Your task to perform on an android device: Open settings on Google Maps Image 0: 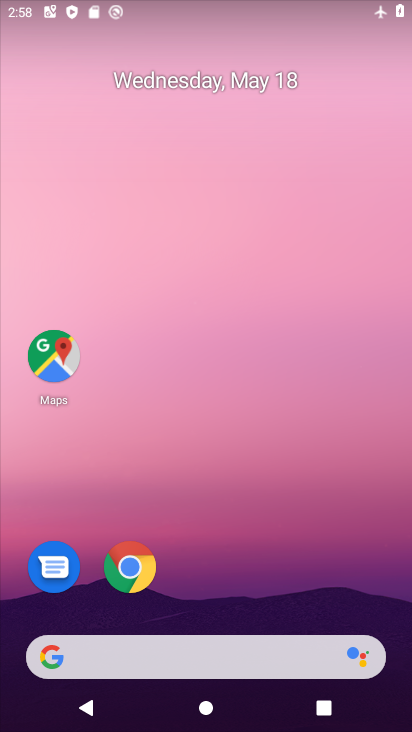
Step 0: click (42, 357)
Your task to perform on an android device: Open settings on Google Maps Image 1: 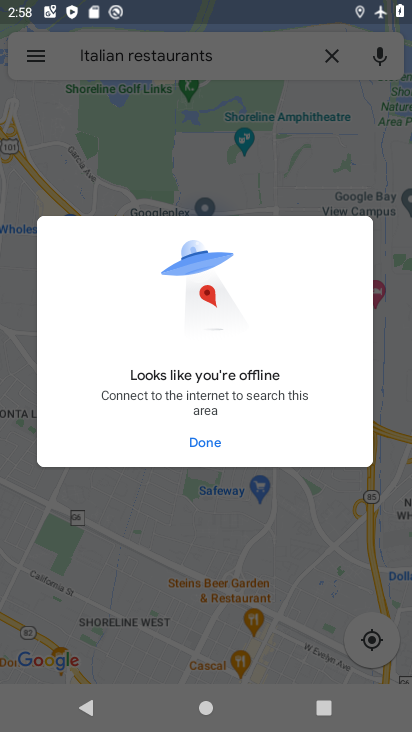
Step 1: click (199, 428)
Your task to perform on an android device: Open settings on Google Maps Image 2: 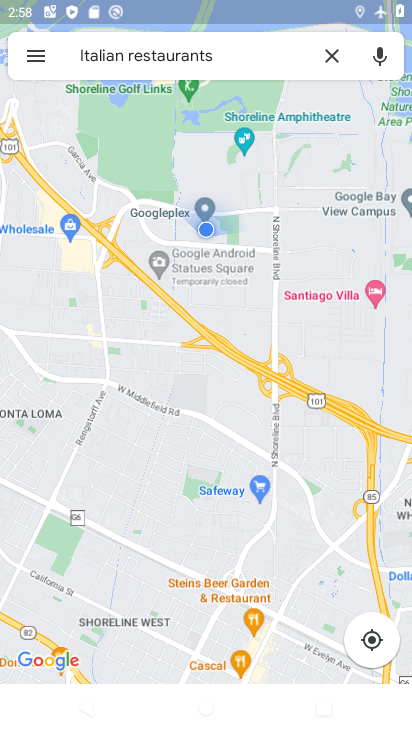
Step 2: click (31, 49)
Your task to perform on an android device: Open settings on Google Maps Image 3: 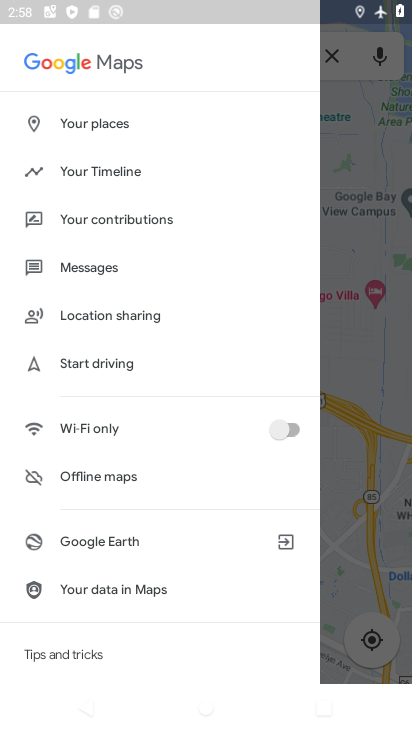
Step 3: drag from (127, 588) to (160, 255)
Your task to perform on an android device: Open settings on Google Maps Image 4: 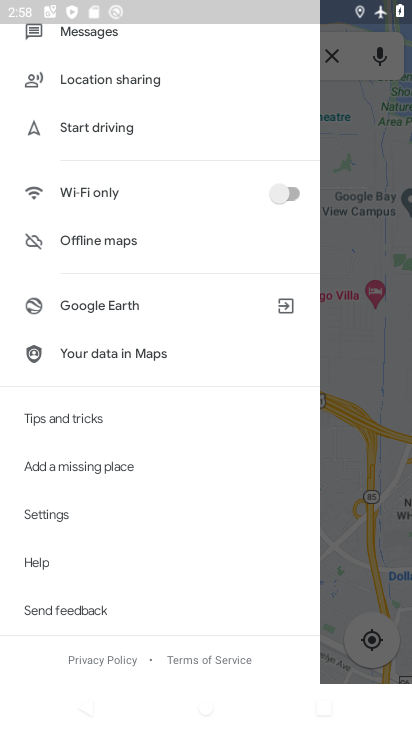
Step 4: click (86, 505)
Your task to perform on an android device: Open settings on Google Maps Image 5: 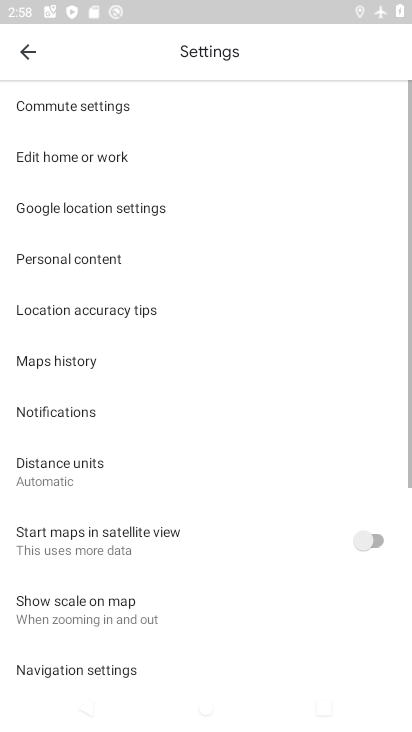
Step 5: task complete